Your task to perform on an android device: Open Google Maps Image 0: 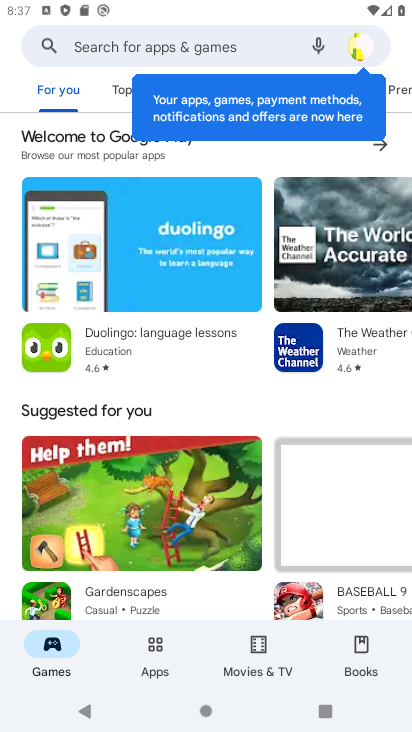
Step 0: press home button
Your task to perform on an android device: Open Google Maps Image 1: 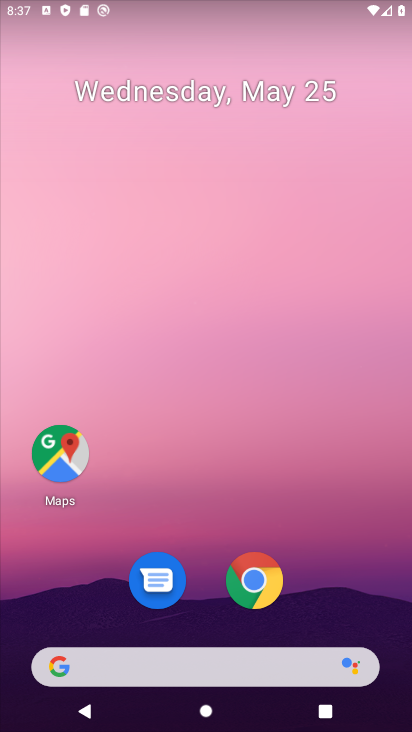
Step 1: click (58, 452)
Your task to perform on an android device: Open Google Maps Image 2: 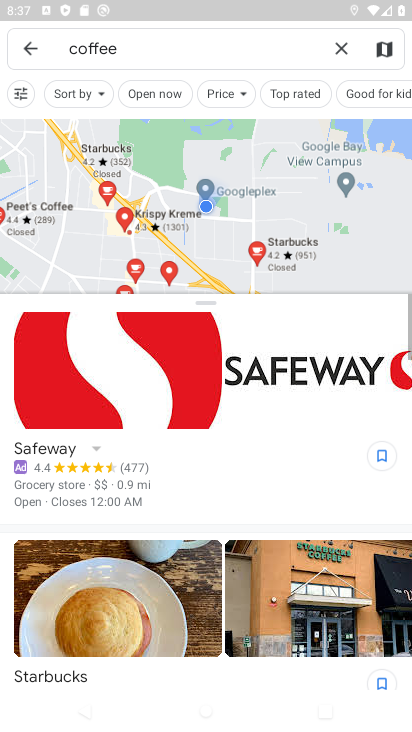
Step 2: click (342, 49)
Your task to perform on an android device: Open Google Maps Image 3: 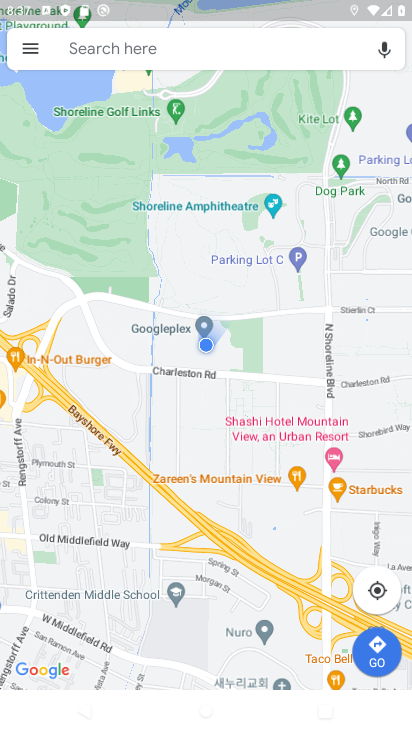
Step 3: task complete